Your task to perform on an android device: change your default location settings in chrome Image 0: 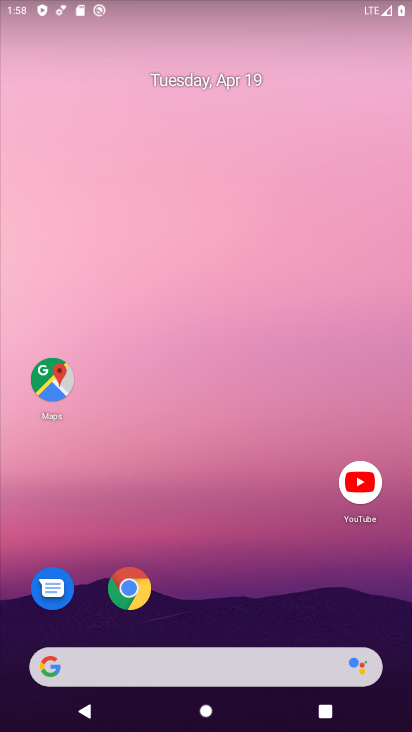
Step 0: drag from (219, 583) to (358, 33)
Your task to perform on an android device: change your default location settings in chrome Image 1: 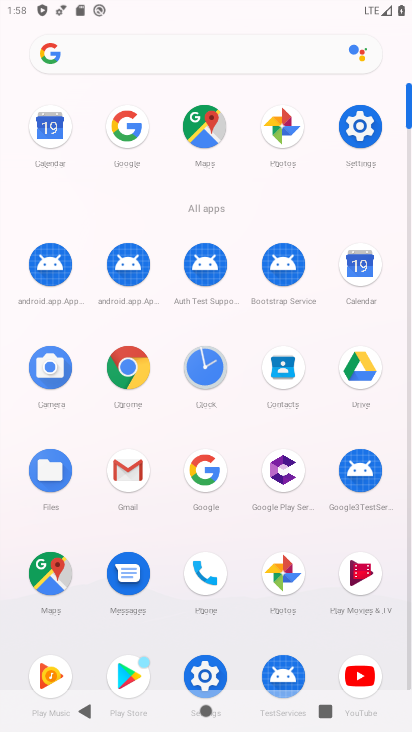
Step 1: click (132, 371)
Your task to perform on an android device: change your default location settings in chrome Image 2: 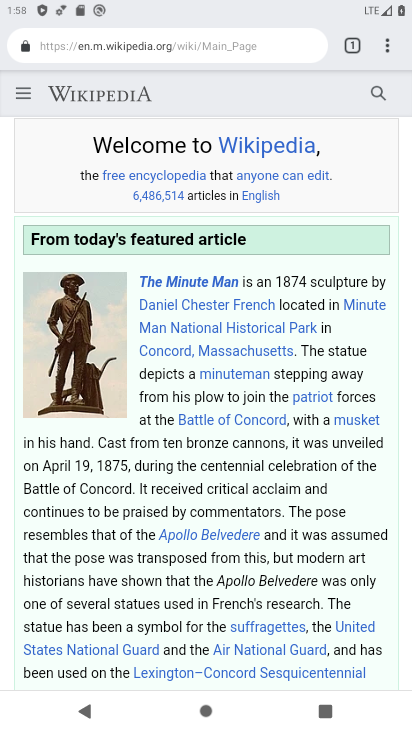
Step 2: click (384, 51)
Your task to perform on an android device: change your default location settings in chrome Image 3: 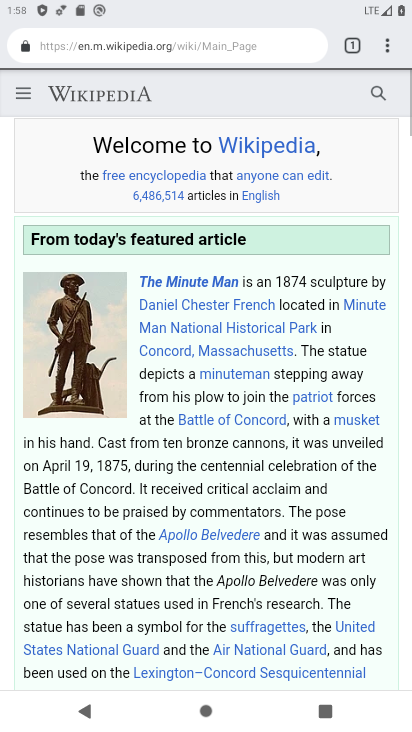
Step 3: drag from (387, 46) to (249, 547)
Your task to perform on an android device: change your default location settings in chrome Image 4: 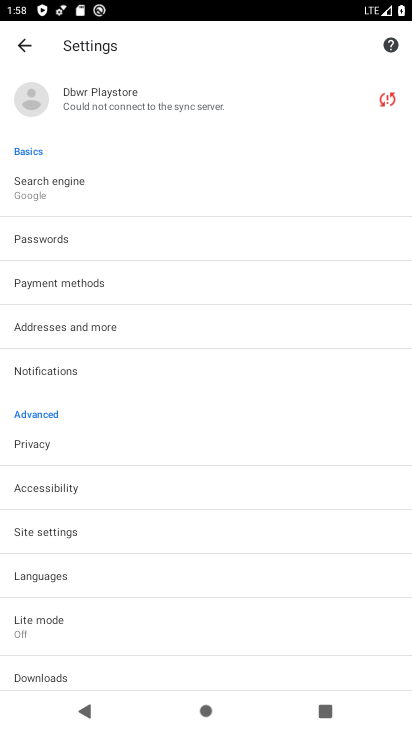
Step 4: drag from (122, 652) to (143, 428)
Your task to perform on an android device: change your default location settings in chrome Image 5: 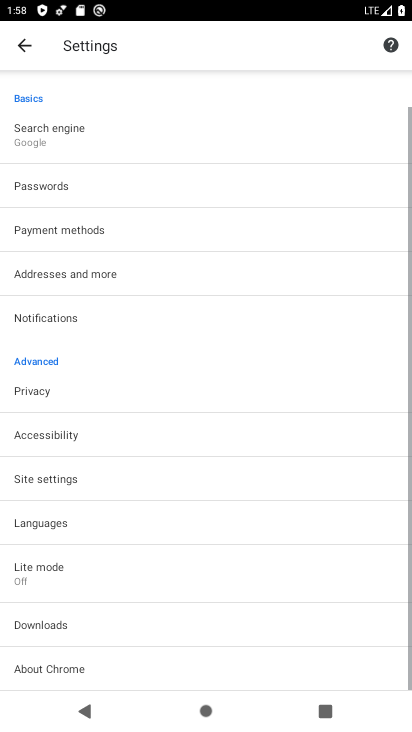
Step 5: click (94, 479)
Your task to perform on an android device: change your default location settings in chrome Image 6: 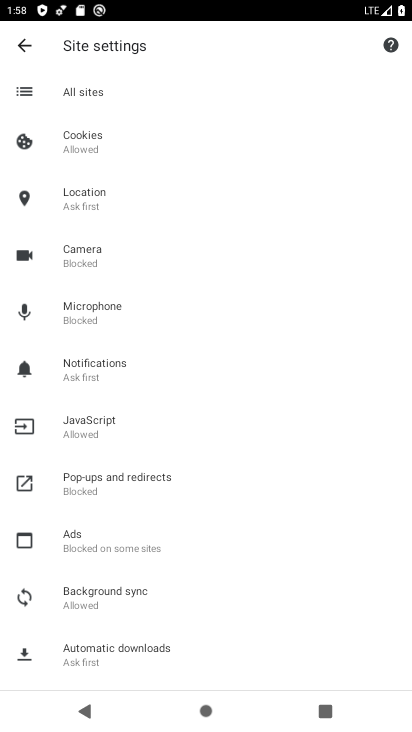
Step 6: click (102, 187)
Your task to perform on an android device: change your default location settings in chrome Image 7: 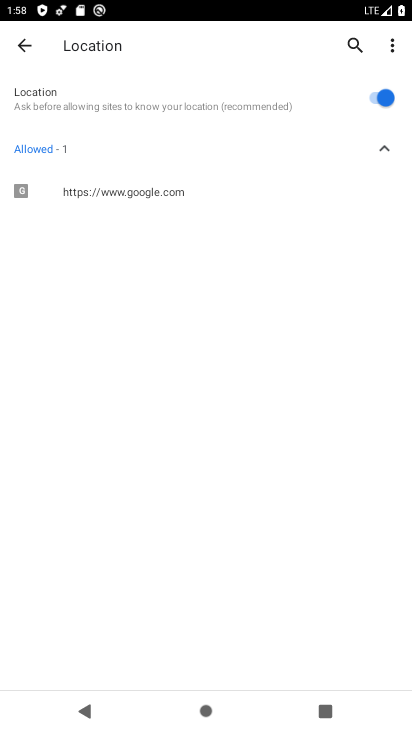
Step 7: click (388, 94)
Your task to perform on an android device: change your default location settings in chrome Image 8: 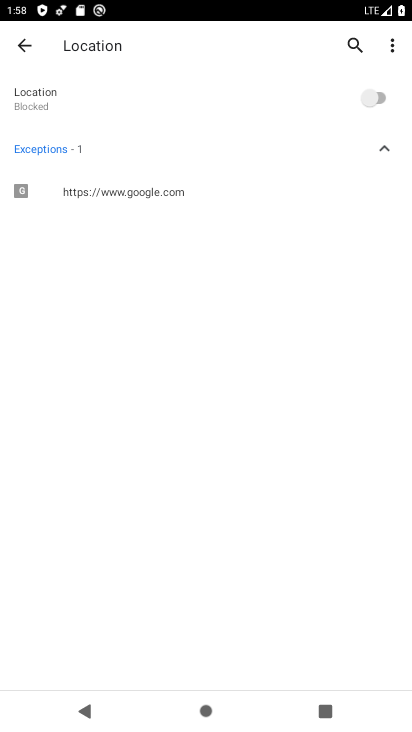
Step 8: task complete